Your task to perform on an android device: check storage Image 0: 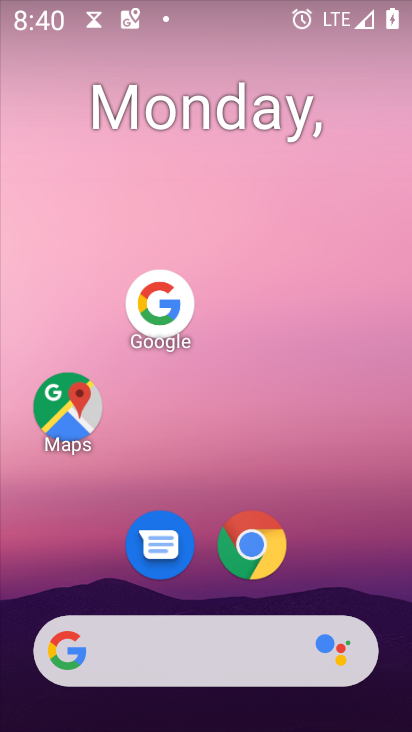
Step 0: drag from (196, 656) to (343, 23)
Your task to perform on an android device: check storage Image 1: 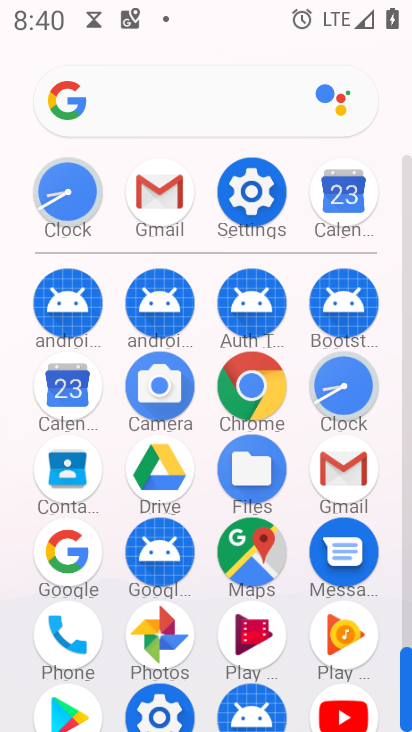
Step 1: click (259, 199)
Your task to perform on an android device: check storage Image 2: 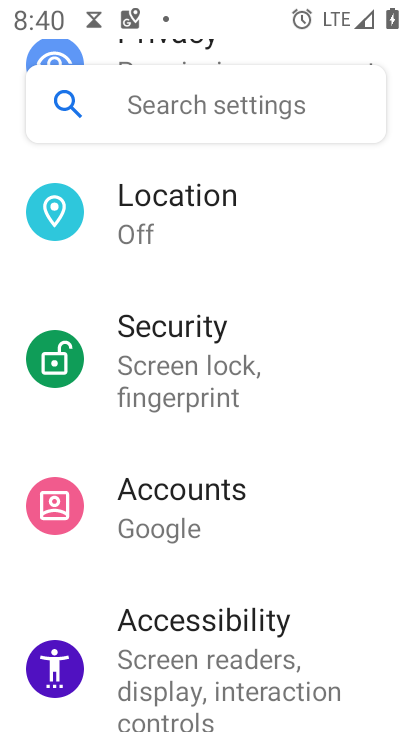
Step 2: drag from (324, 263) to (283, 665)
Your task to perform on an android device: check storage Image 3: 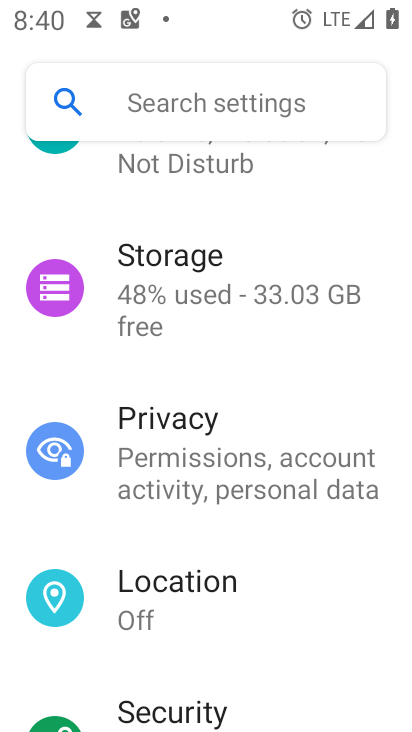
Step 3: click (186, 264)
Your task to perform on an android device: check storage Image 4: 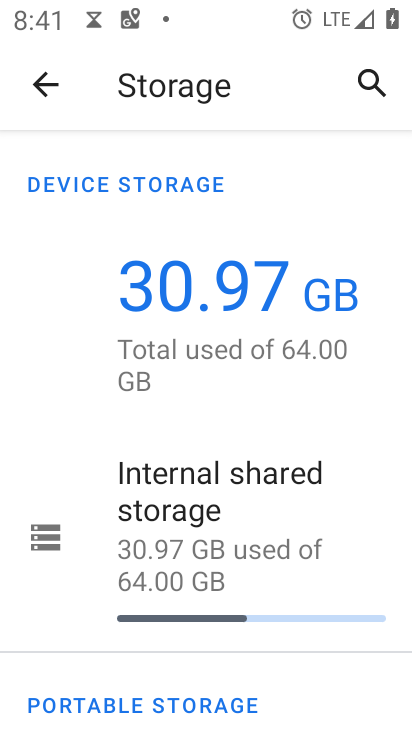
Step 4: task complete